Your task to perform on an android device: Add jbl charge 4 to the cart on walmart, then select checkout. Image 0: 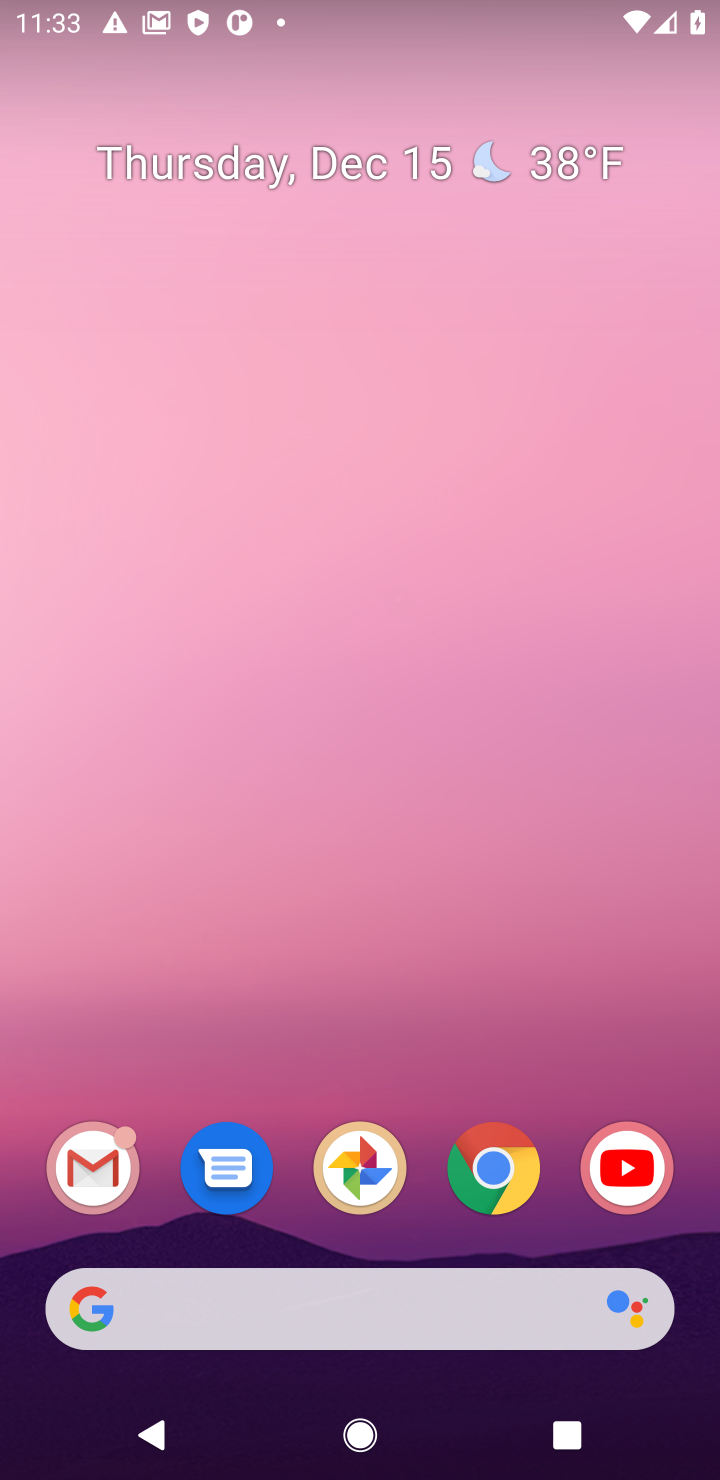
Step 0: click (495, 1145)
Your task to perform on an android device: Add jbl charge 4 to the cart on walmart, then select checkout. Image 1: 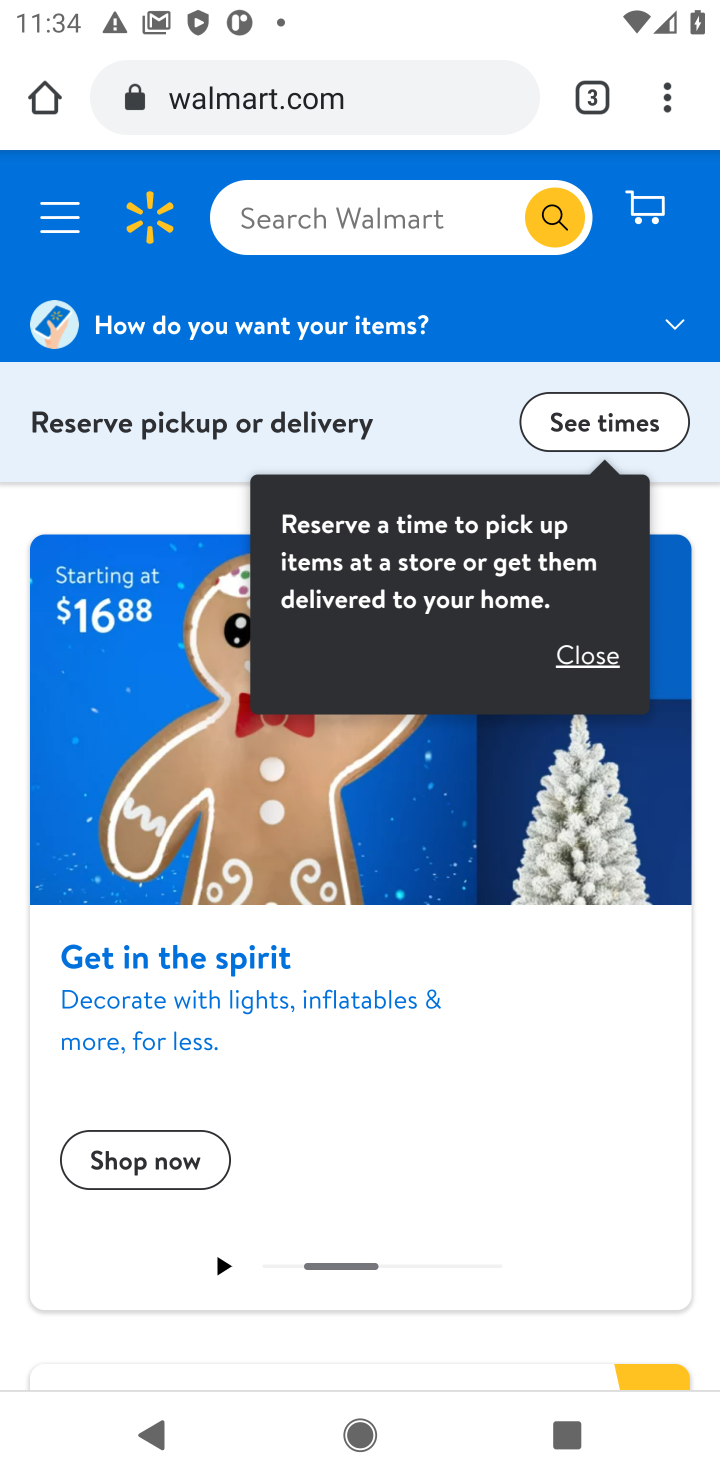
Step 1: click (455, 215)
Your task to perform on an android device: Add jbl charge 4 to the cart on walmart, then select checkout. Image 2: 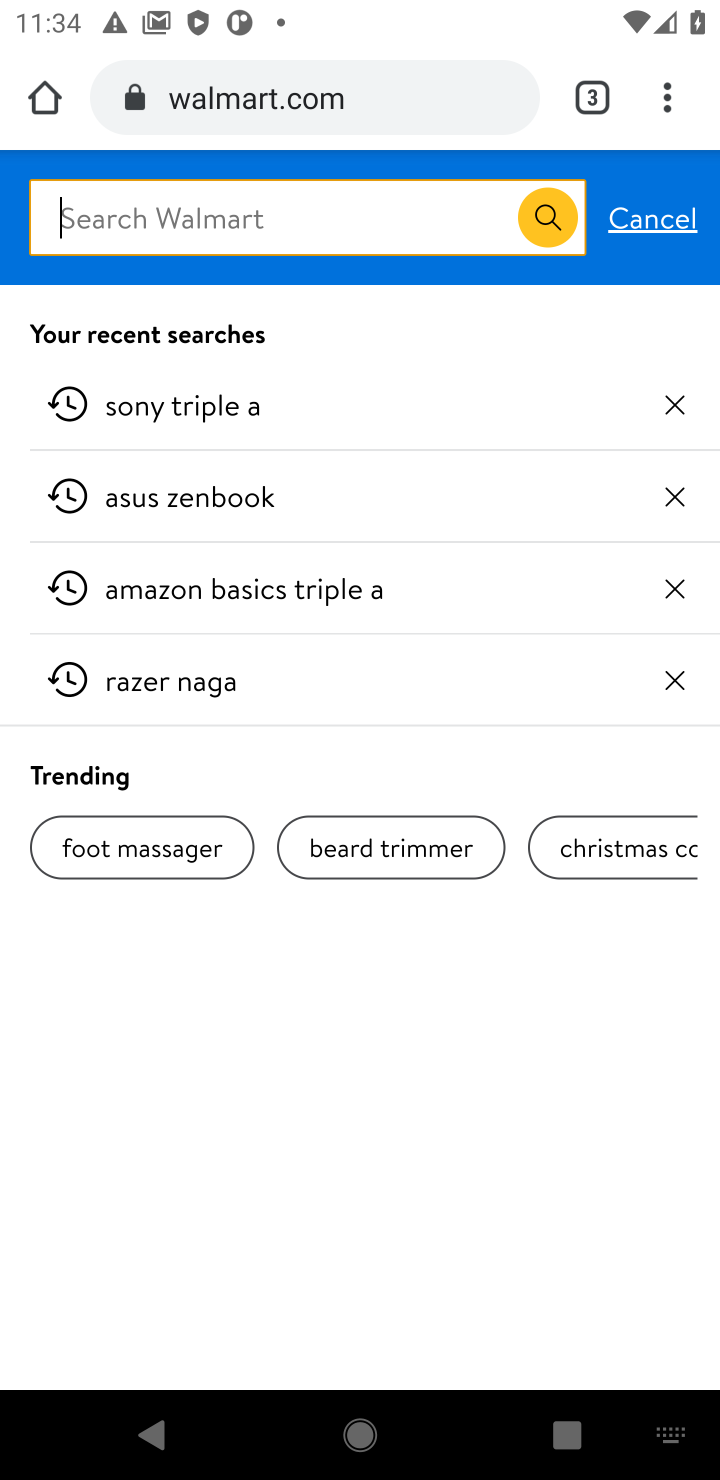
Step 2: type "jbl charge 4"
Your task to perform on an android device: Add jbl charge 4 to the cart on walmart, then select checkout. Image 3: 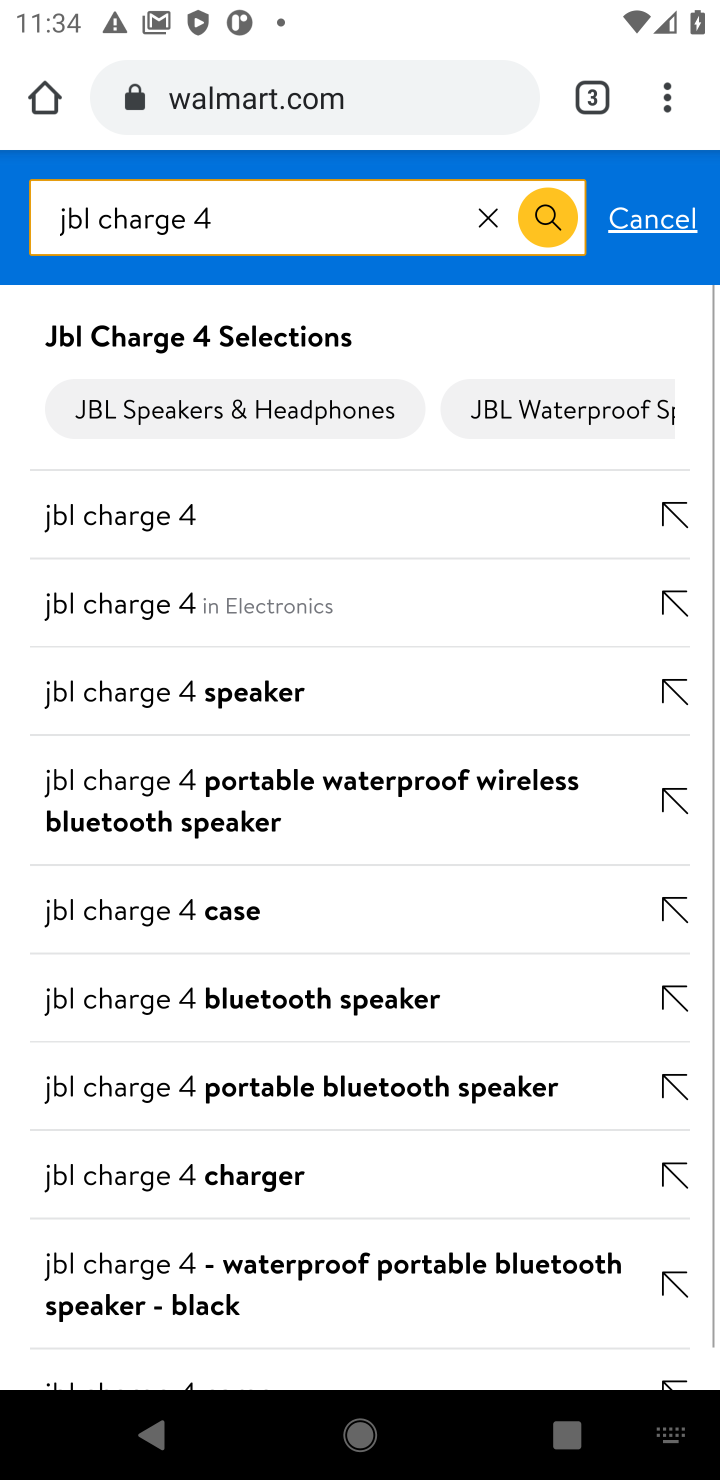
Step 3: click (546, 205)
Your task to perform on an android device: Add jbl charge 4 to the cart on walmart, then select checkout. Image 4: 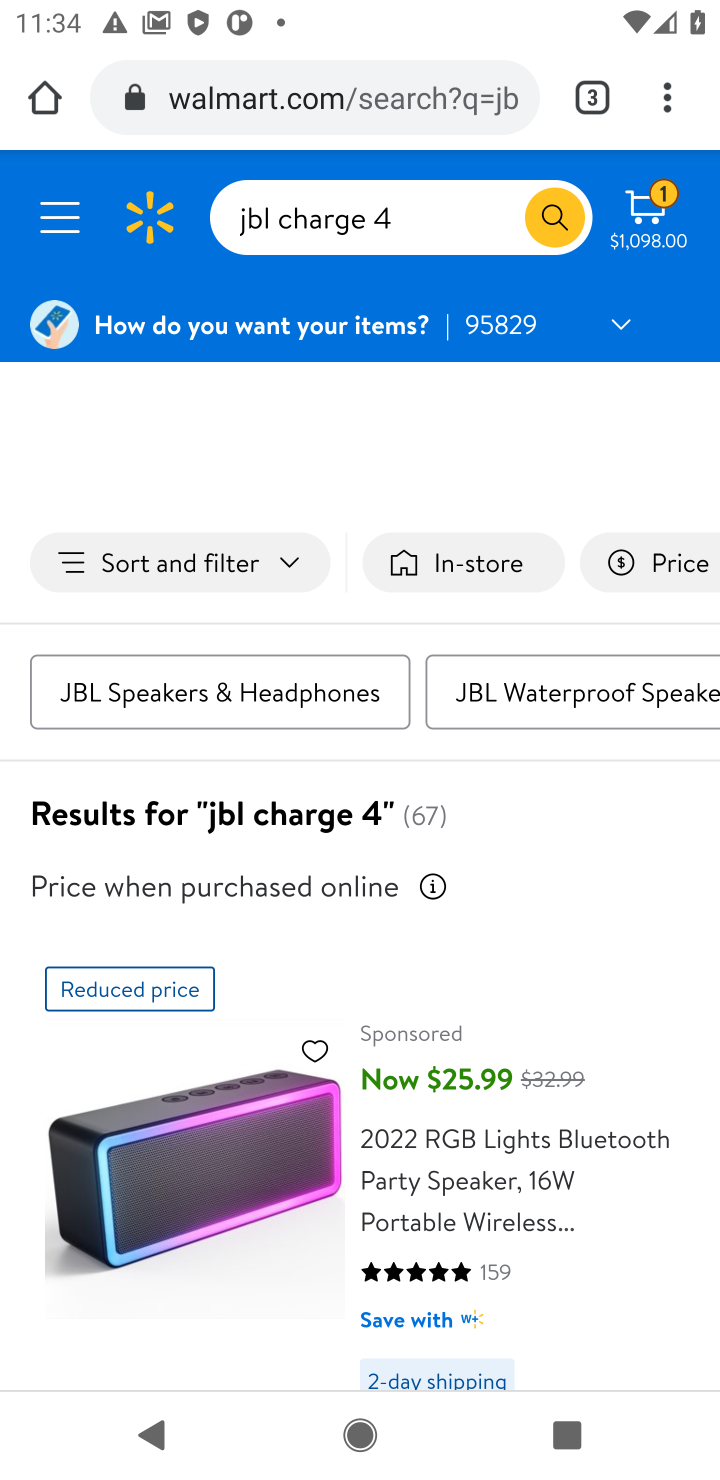
Step 4: click (592, 1152)
Your task to perform on an android device: Add jbl charge 4 to the cart on walmart, then select checkout. Image 5: 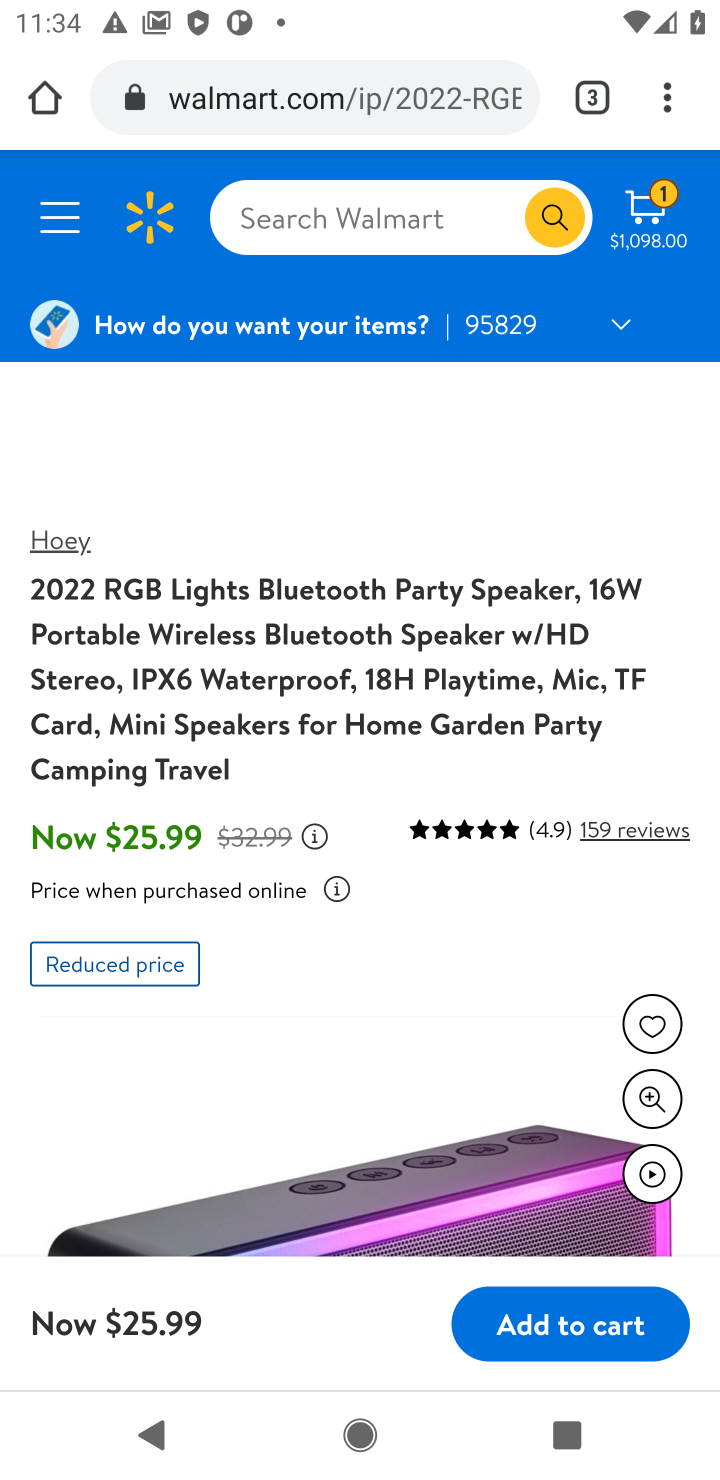
Step 5: click (554, 1316)
Your task to perform on an android device: Add jbl charge 4 to the cart on walmart, then select checkout. Image 6: 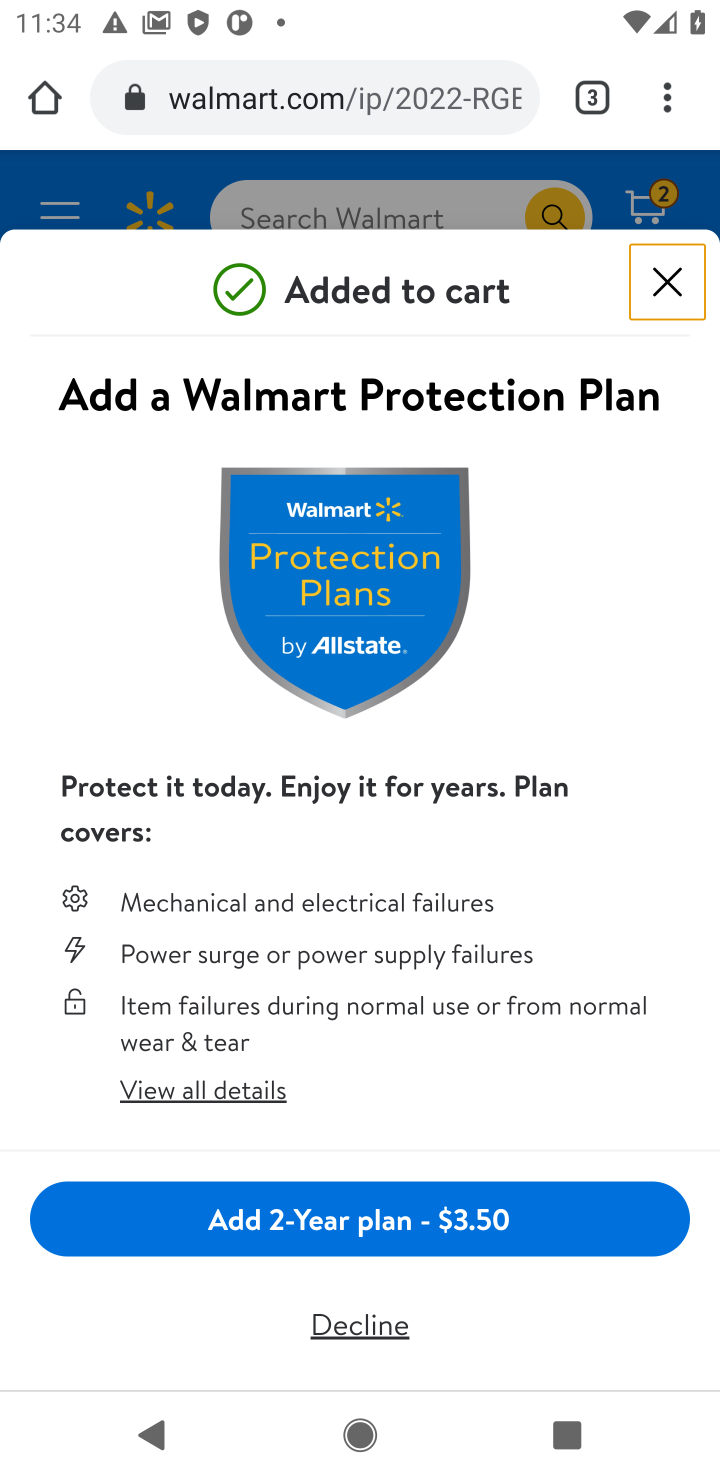
Step 6: click (676, 295)
Your task to perform on an android device: Add jbl charge 4 to the cart on walmart, then select checkout. Image 7: 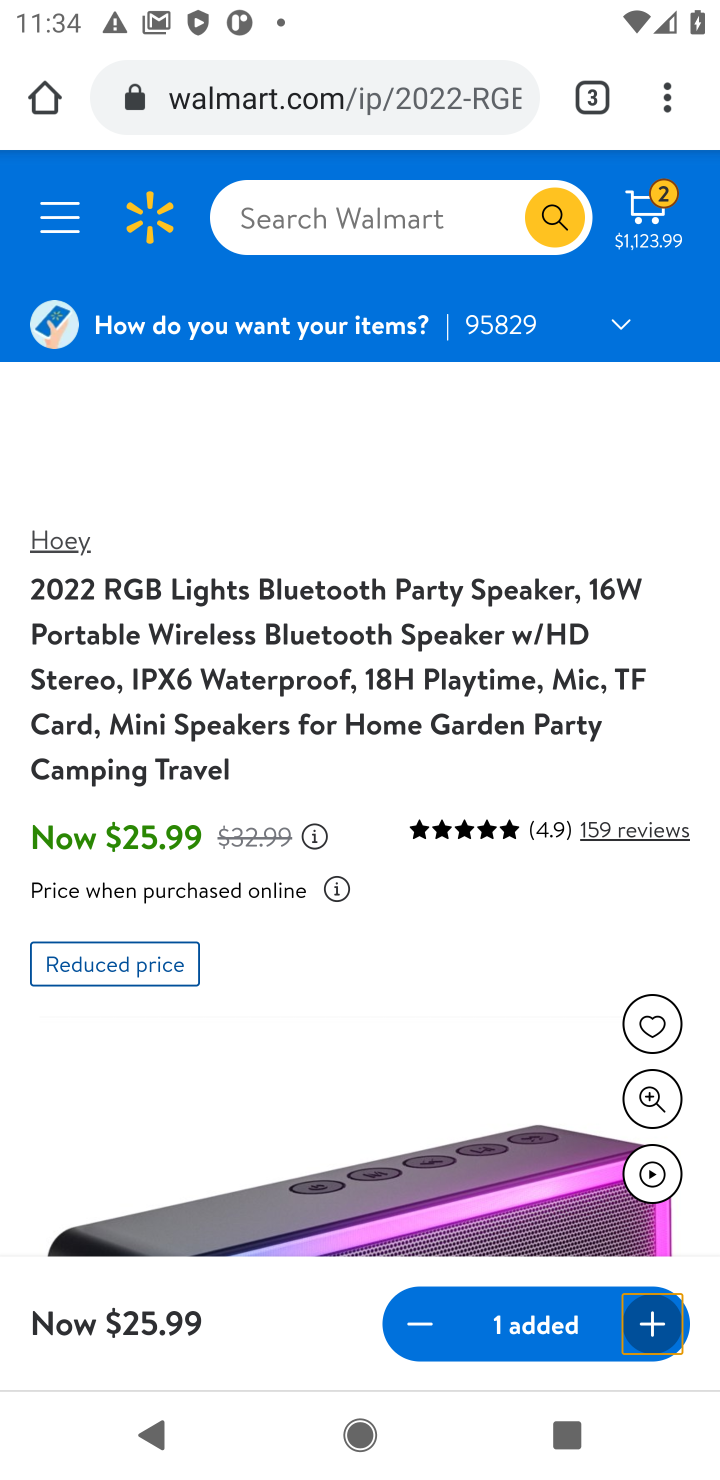
Step 7: click (656, 204)
Your task to perform on an android device: Add jbl charge 4 to the cart on walmart, then select checkout. Image 8: 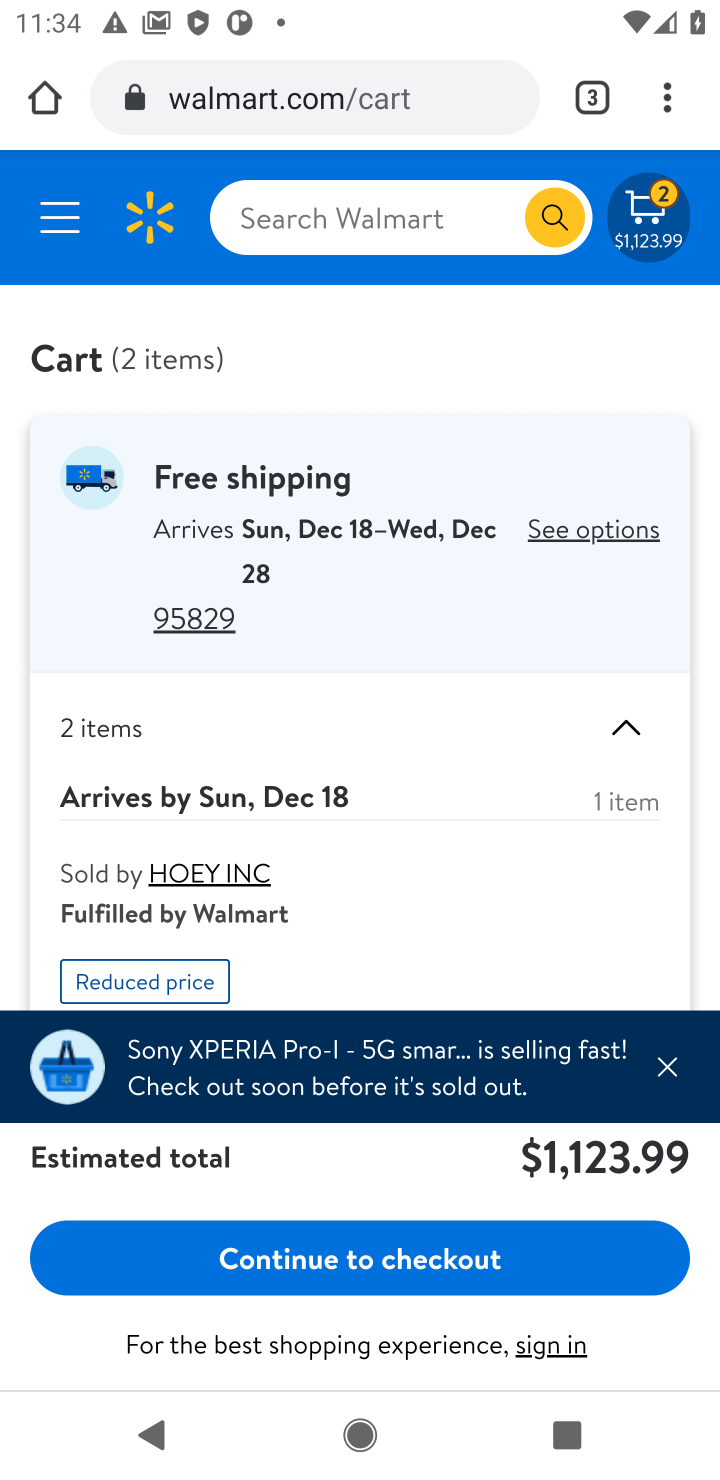
Step 8: click (361, 1267)
Your task to perform on an android device: Add jbl charge 4 to the cart on walmart, then select checkout. Image 9: 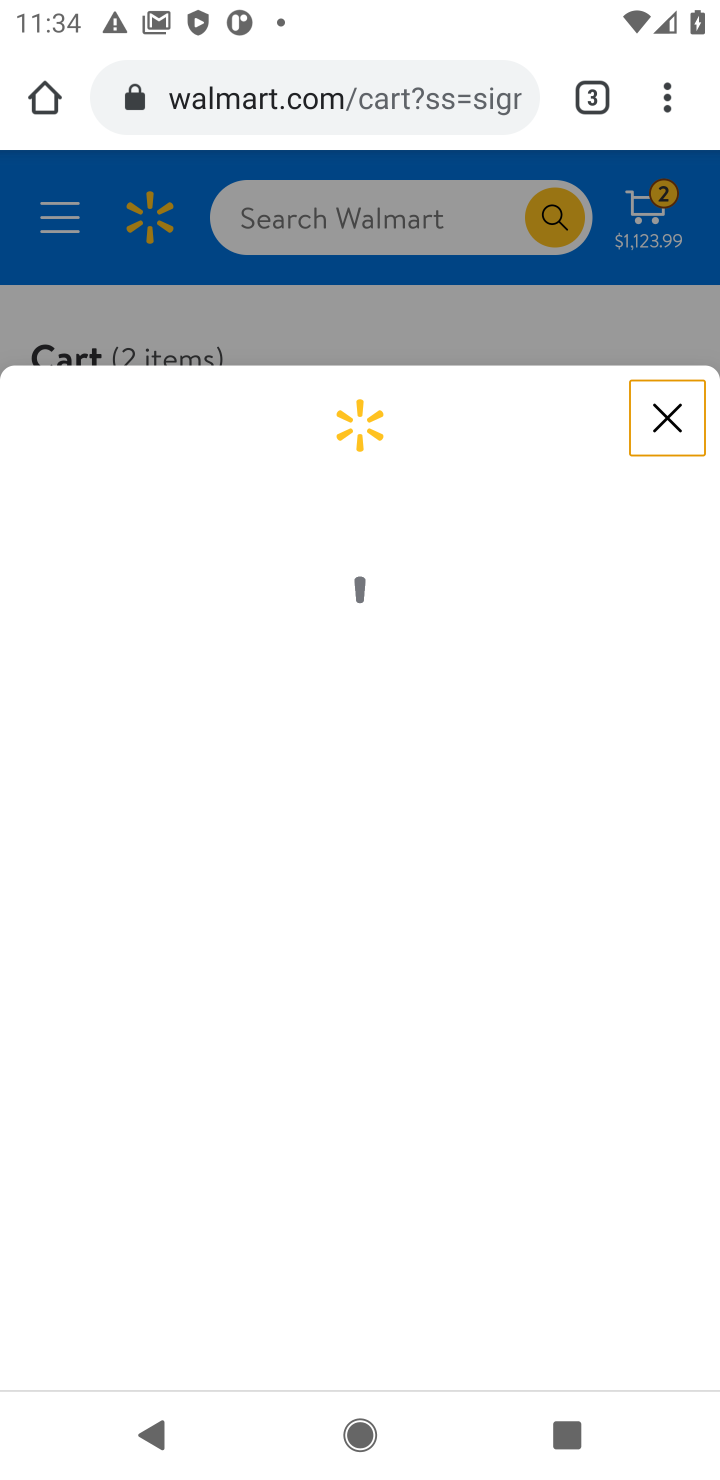
Step 9: task complete